Your task to perform on an android device: toggle show notifications on the lock screen Image 0: 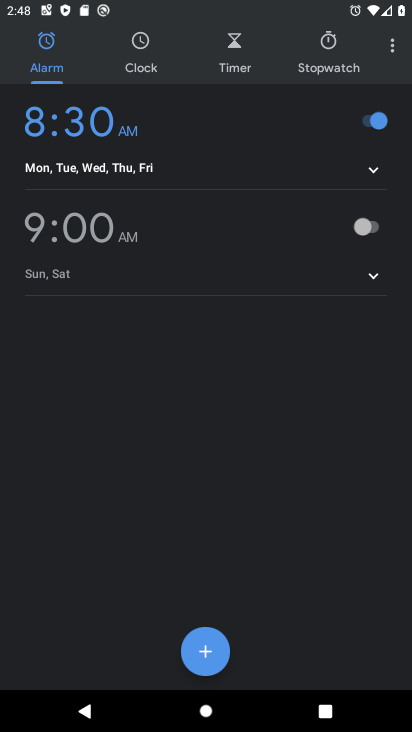
Step 0: press back button
Your task to perform on an android device: toggle show notifications on the lock screen Image 1: 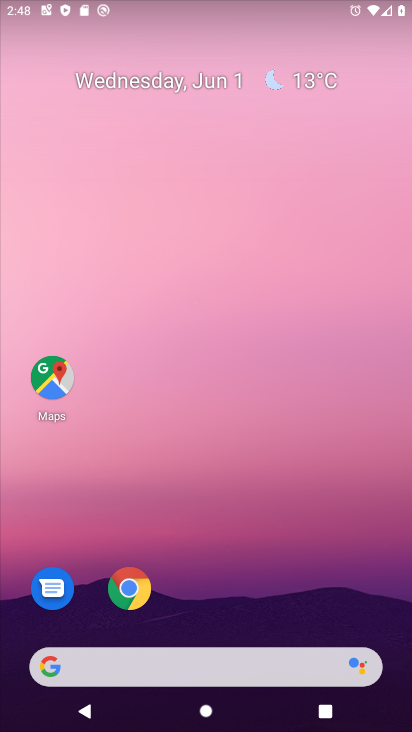
Step 1: drag from (230, 519) to (239, 72)
Your task to perform on an android device: toggle show notifications on the lock screen Image 2: 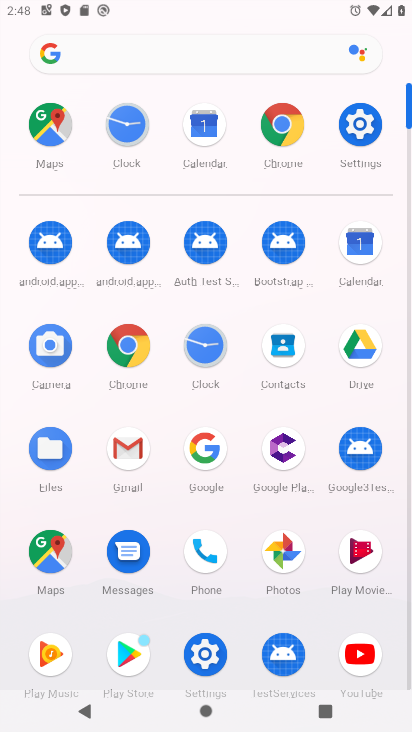
Step 2: click (360, 116)
Your task to perform on an android device: toggle show notifications on the lock screen Image 3: 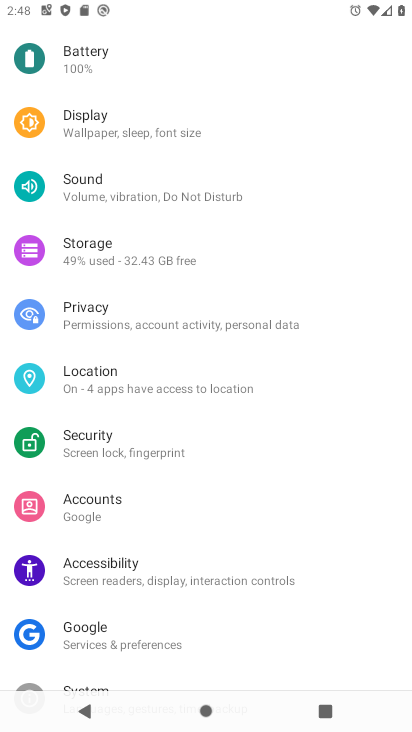
Step 3: drag from (209, 153) to (140, 712)
Your task to perform on an android device: toggle show notifications on the lock screen Image 4: 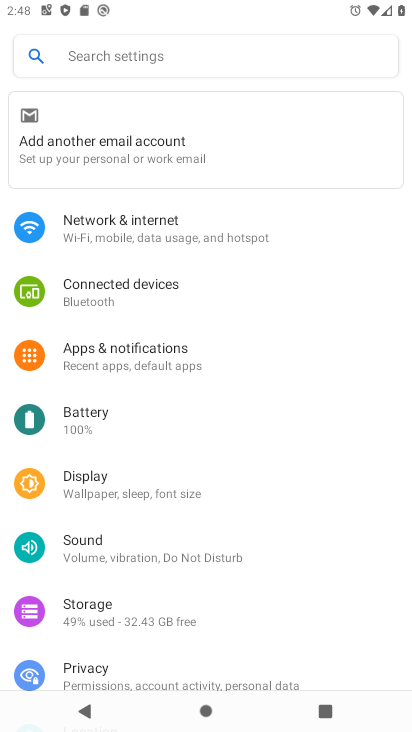
Step 4: click (137, 343)
Your task to perform on an android device: toggle show notifications on the lock screen Image 5: 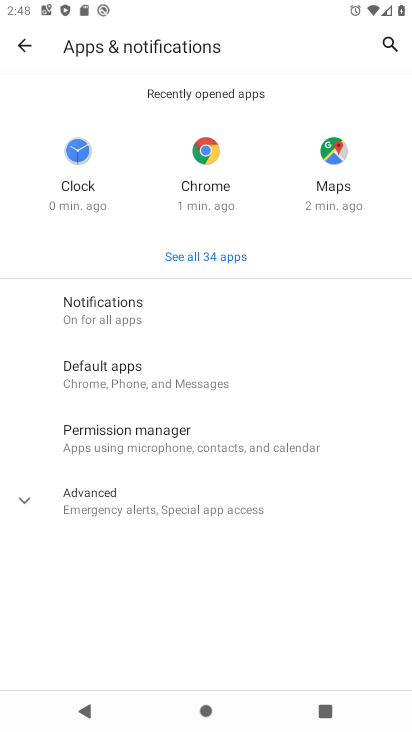
Step 5: click (125, 310)
Your task to perform on an android device: toggle show notifications on the lock screen Image 6: 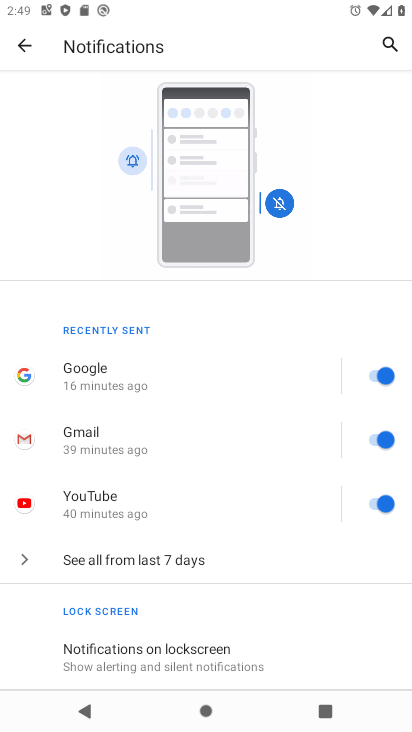
Step 6: click (240, 652)
Your task to perform on an android device: toggle show notifications on the lock screen Image 7: 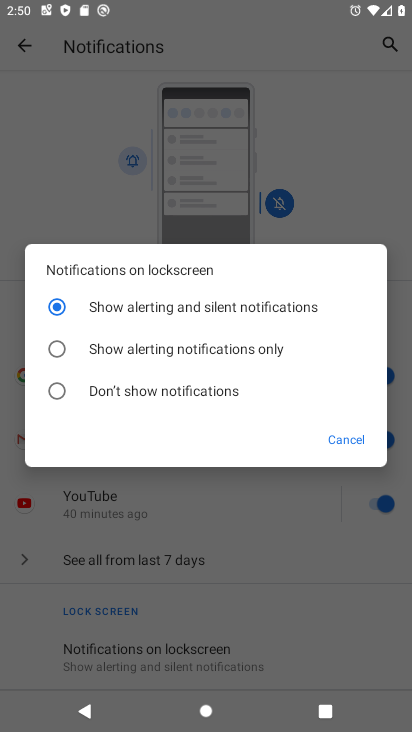
Step 7: task complete